Your task to perform on an android device: star an email in the gmail app Image 0: 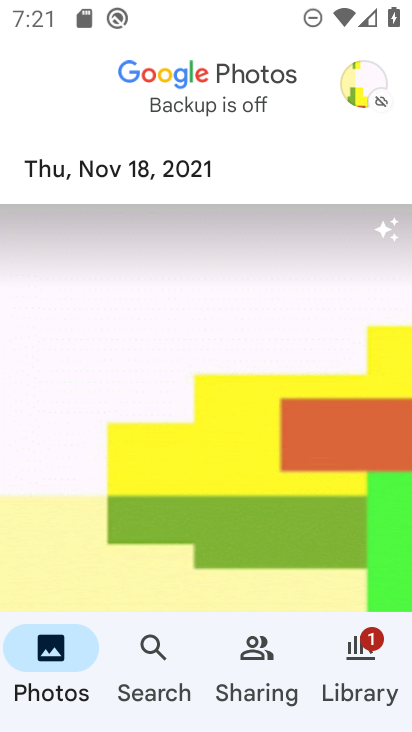
Step 0: press home button
Your task to perform on an android device: star an email in the gmail app Image 1: 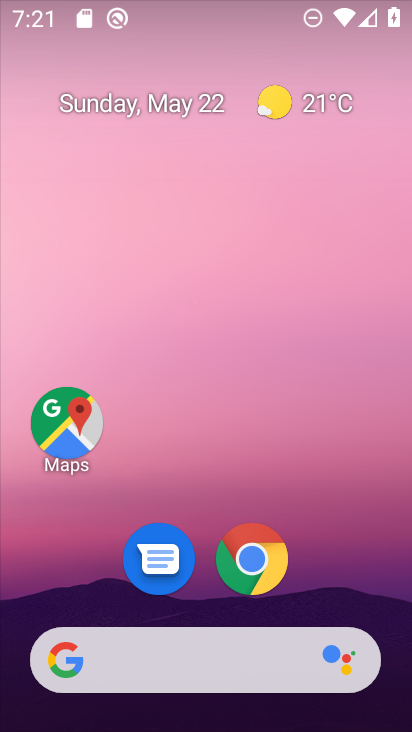
Step 1: drag from (266, 726) to (217, 98)
Your task to perform on an android device: star an email in the gmail app Image 2: 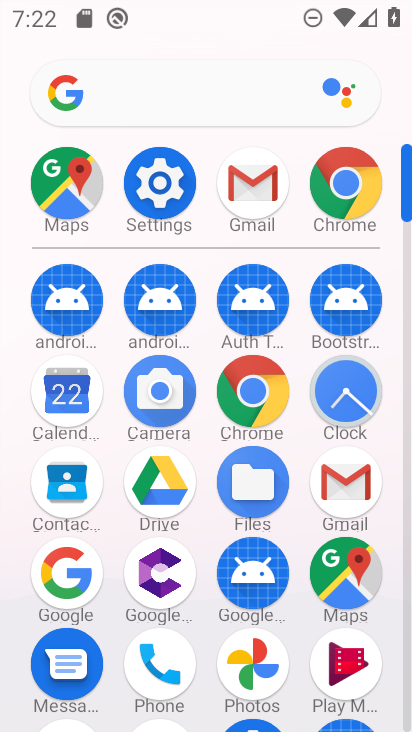
Step 2: click (262, 200)
Your task to perform on an android device: star an email in the gmail app Image 3: 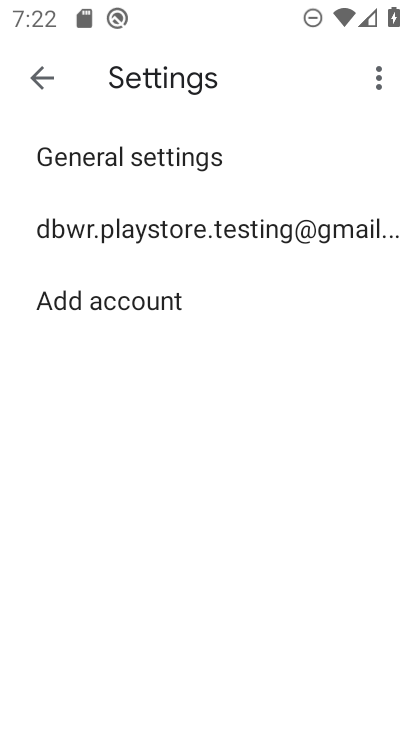
Step 3: click (225, 226)
Your task to perform on an android device: star an email in the gmail app Image 4: 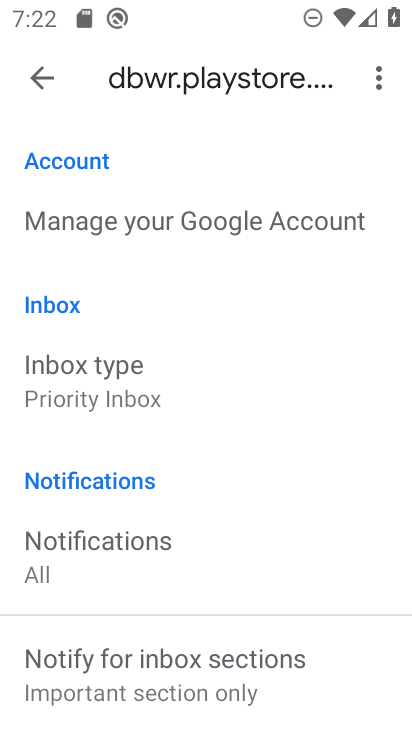
Step 4: click (27, 74)
Your task to perform on an android device: star an email in the gmail app Image 5: 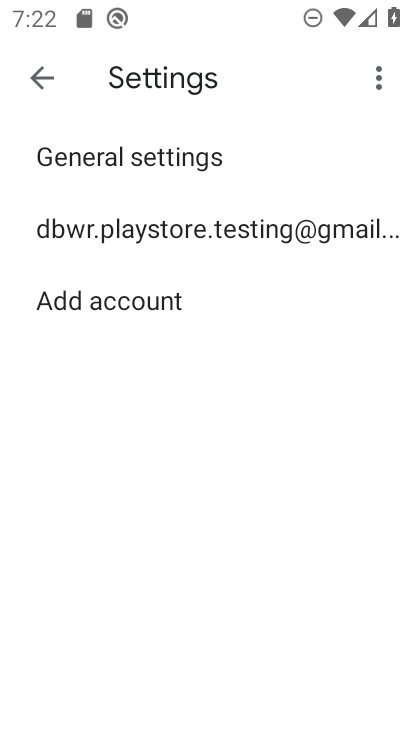
Step 5: click (27, 74)
Your task to perform on an android device: star an email in the gmail app Image 6: 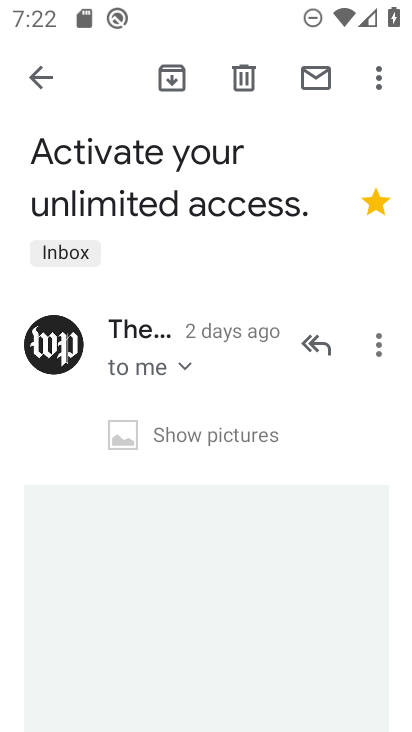
Step 6: click (364, 197)
Your task to perform on an android device: star an email in the gmail app Image 7: 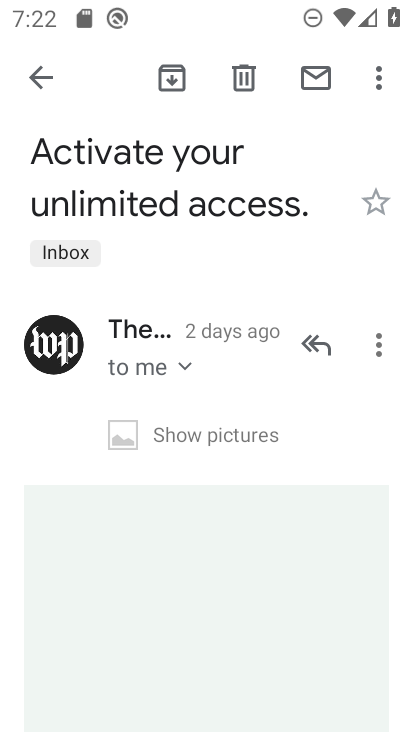
Step 7: click (363, 207)
Your task to perform on an android device: star an email in the gmail app Image 8: 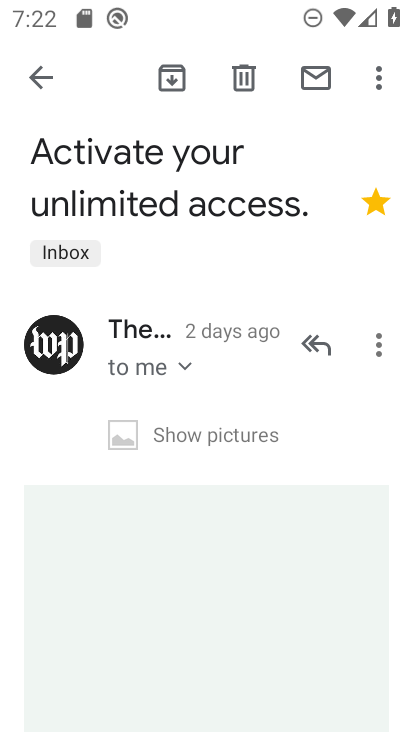
Step 8: task complete